Your task to perform on an android device: turn off location history Image 0: 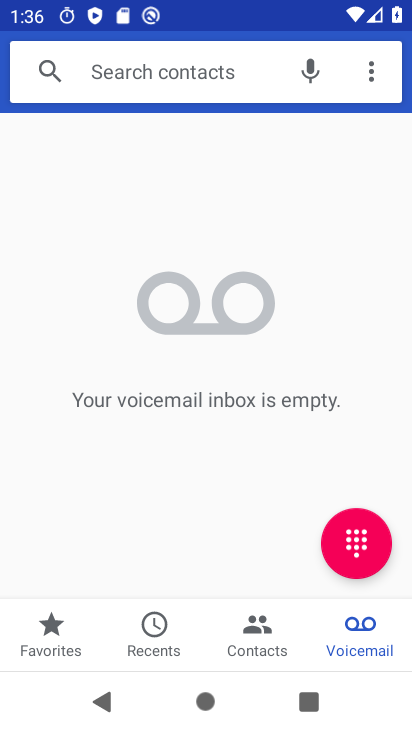
Step 0: press home button
Your task to perform on an android device: turn off location history Image 1: 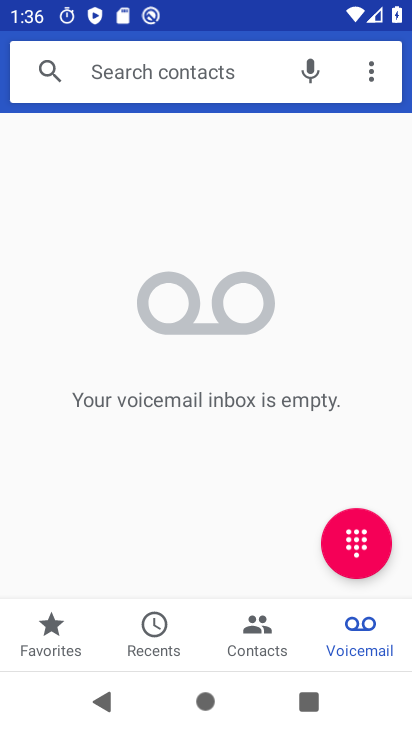
Step 1: press home button
Your task to perform on an android device: turn off location history Image 2: 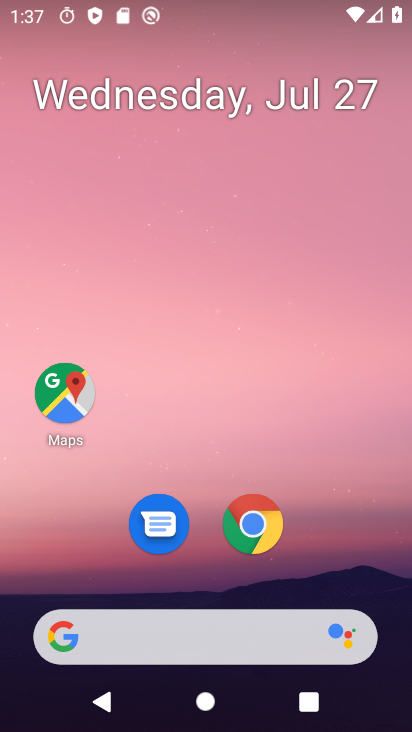
Step 2: drag from (330, 548) to (348, 53)
Your task to perform on an android device: turn off location history Image 3: 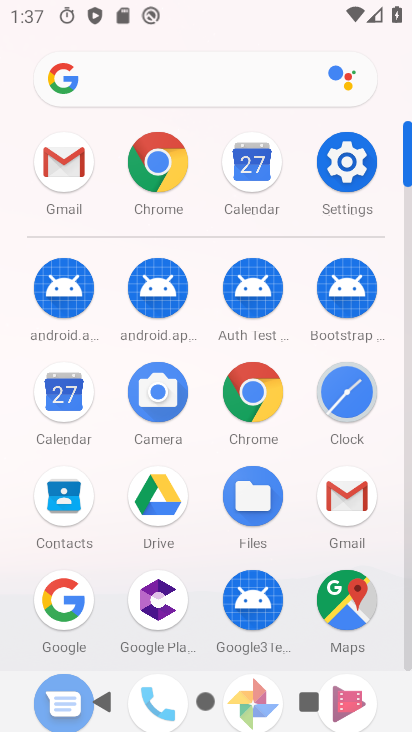
Step 3: click (342, 163)
Your task to perform on an android device: turn off location history Image 4: 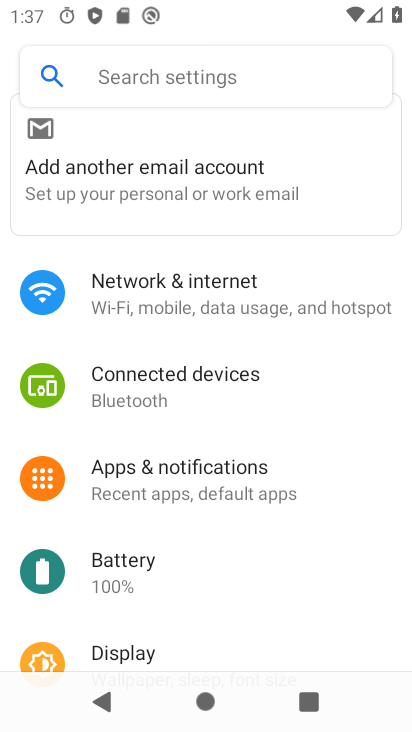
Step 4: drag from (266, 572) to (261, 106)
Your task to perform on an android device: turn off location history Image 5: 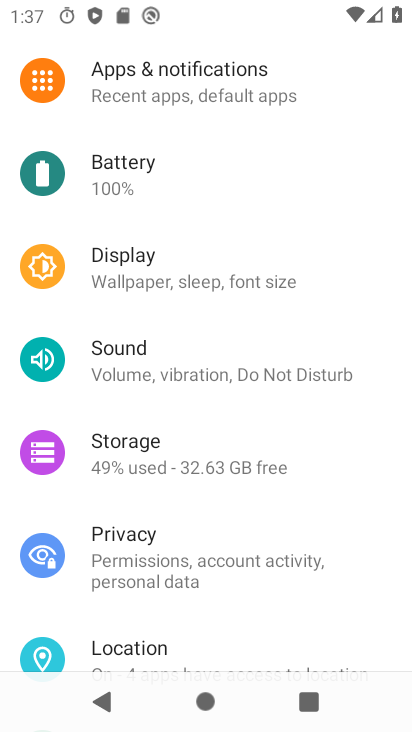
Step 5: drag from (213, 488) to (235, 246)
Your task to perform on an android device: turn off location history Image 6: 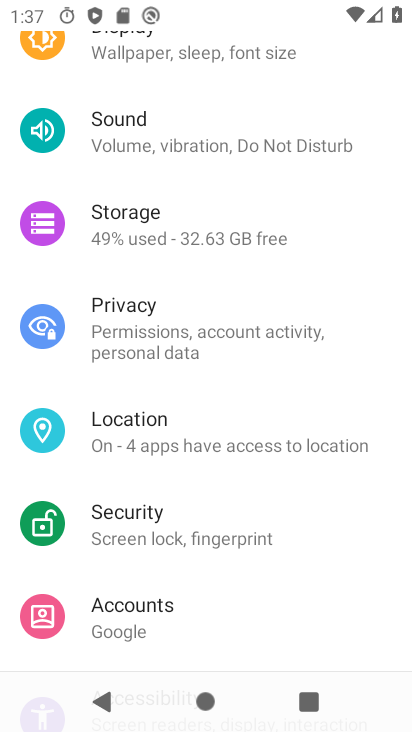
Step 6: click (234, 432)
Your task to perform on an android device: turn off location history Image 7: 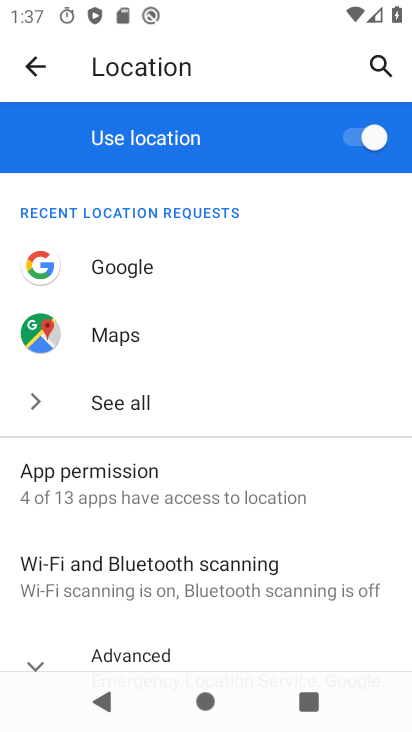
Step 7: drag from (139, 509) to (180, 307)
Your task to perform on an android device: turn off location history Image 8: 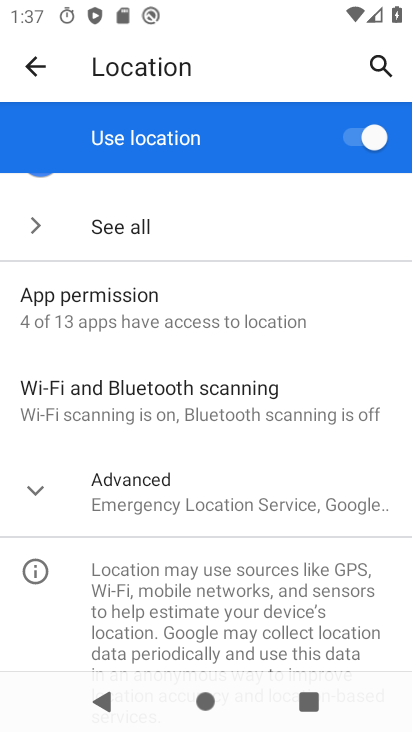
Step 8: click (36, 487)
Your task to perform on an android device: turn off location history Image 9: 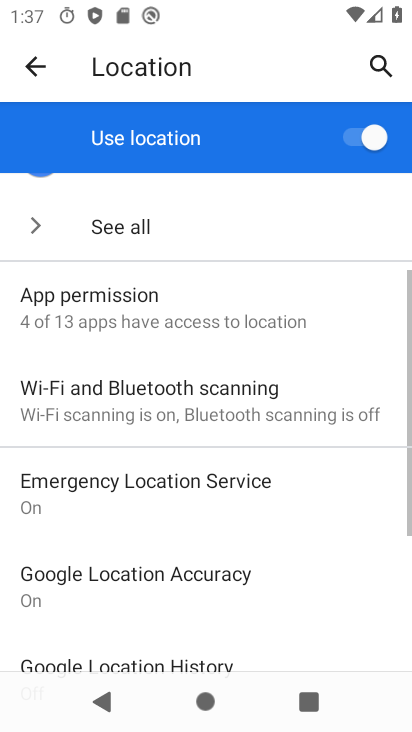
Step 9: drag from (209, 561) to (181, 281)
Your task to perform on an android device: turn off location history Image 10: 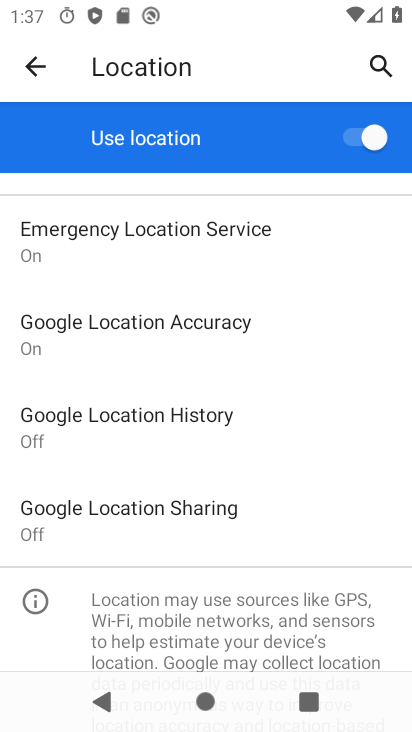
Step 10: click (171, 410)
Your task to perform on an android device: turn off location history Image 11: 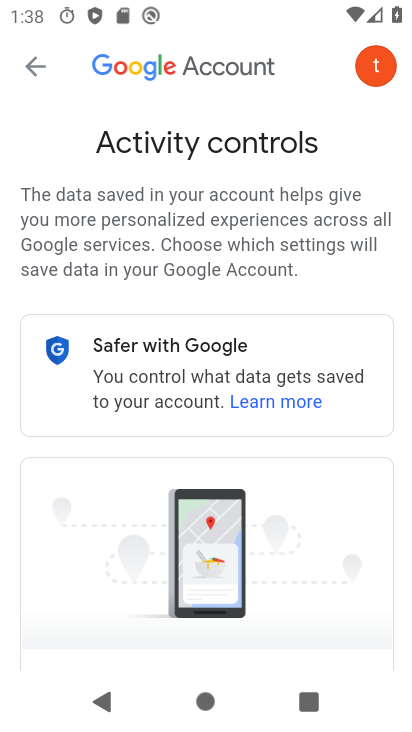
Step 11: drag from (290, 532) to (282, 143)
Your task to perform on an android device: turn off location history Image 12: 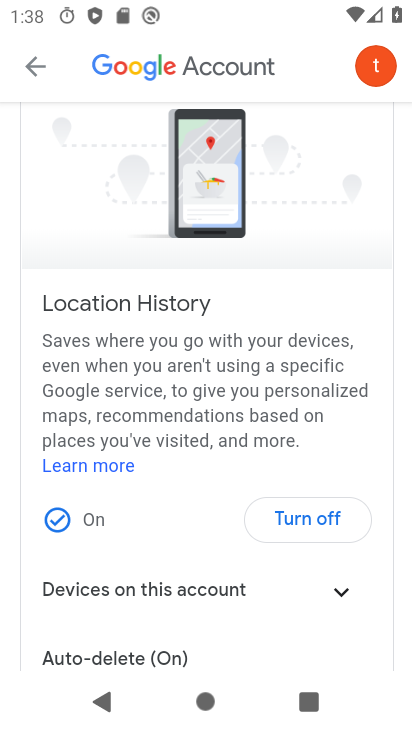
Step 12: click (301, 517)
Your task to perform on an android device: turn off location history Image 13: 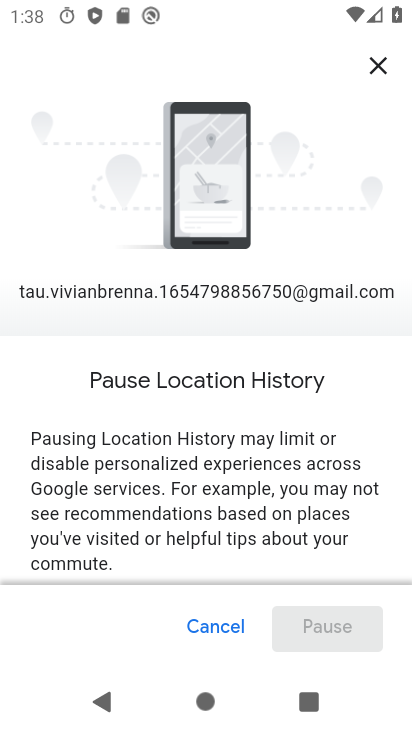
Step 13: drag from (301, 513) to (325, 76)
Your task to perform on an android device: turn off location history Image 14: 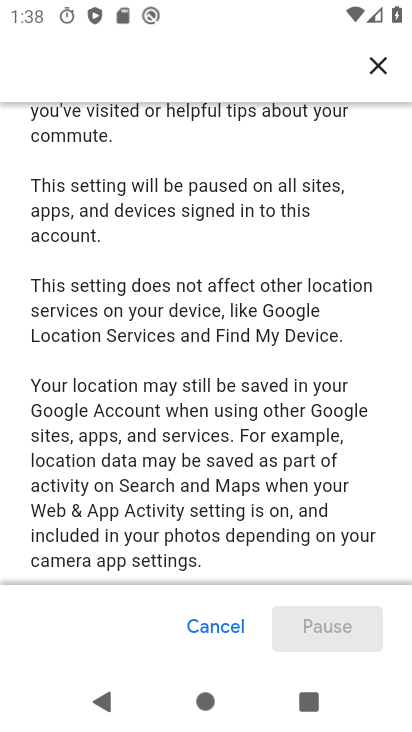
Step 14: drag from (250, 504) to (286, 100)
Your task to perform on an android device: turn off location history Image 15: 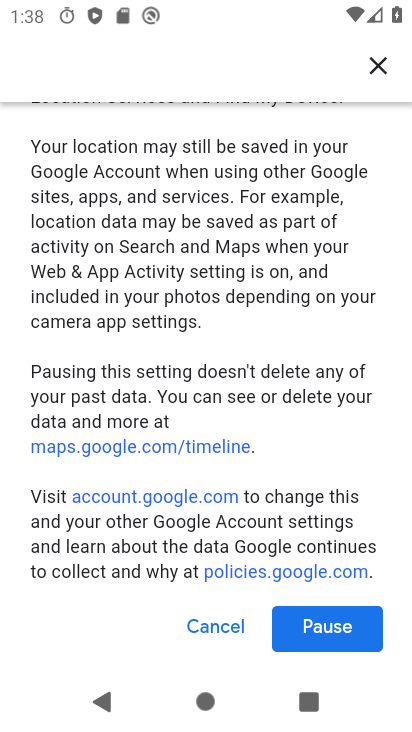
Step 15: click (311, 629)
Your task to perform on an android device: turn off location history Image 16: 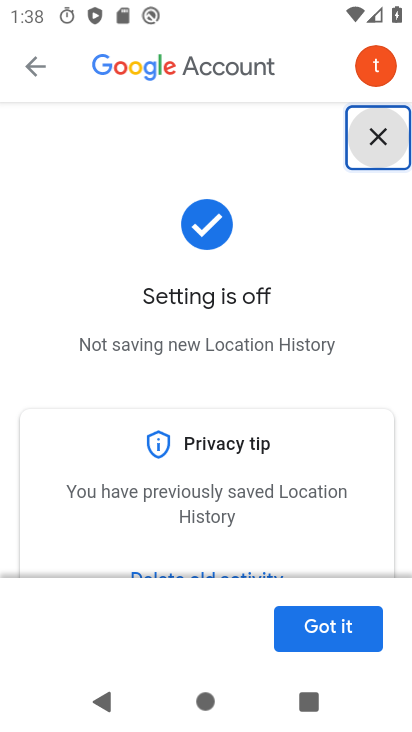
Step 16: click (336, 627)
Your task to perform on an android device: turn off location history Image 17: 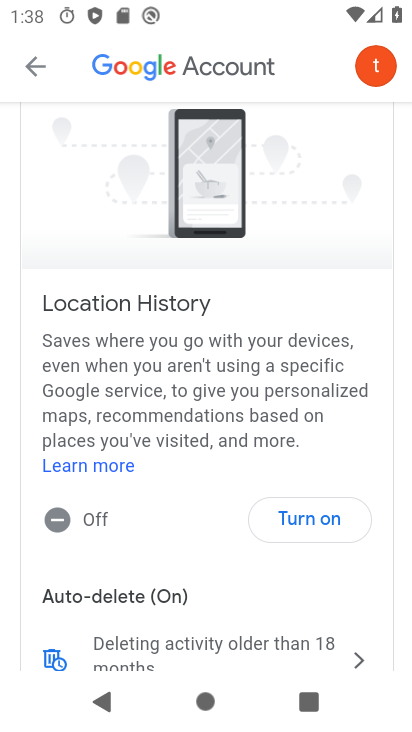
Step 17: task complete